Your task to perform on an android device: Check the weather Image 0: 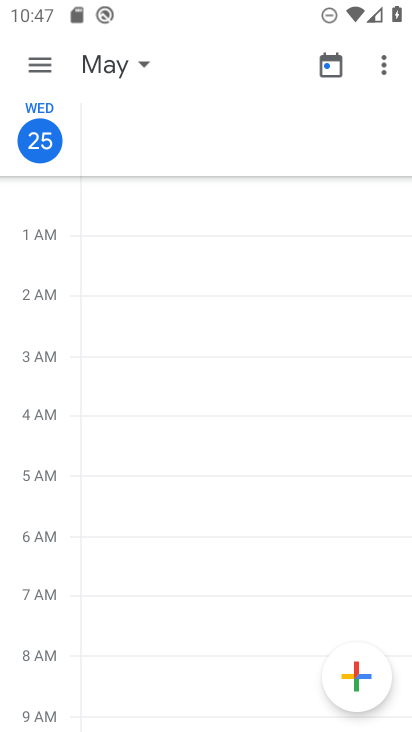
Step 0: press home button
Your task to perform on an android device: Check the weather Image 1: 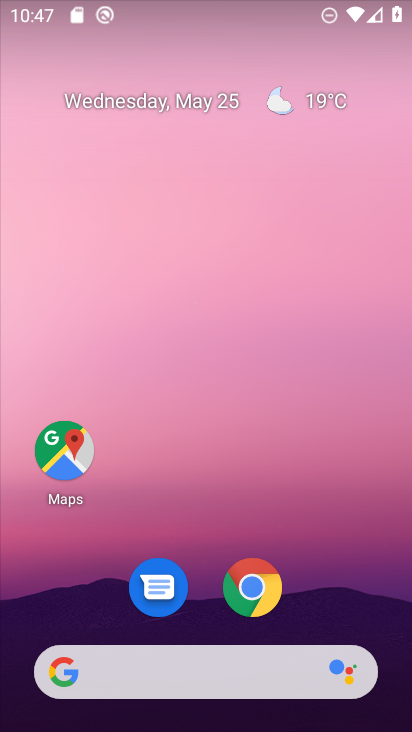
Step 1: click (310, 102)
Your task to perform on an android device: Check the weather Image 2: 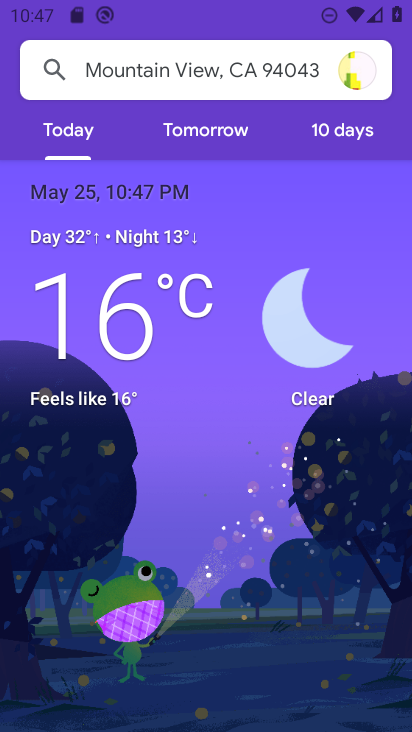
Step 2: task complete